Your task to perform on an android device: Open accessibility settings Image 0: 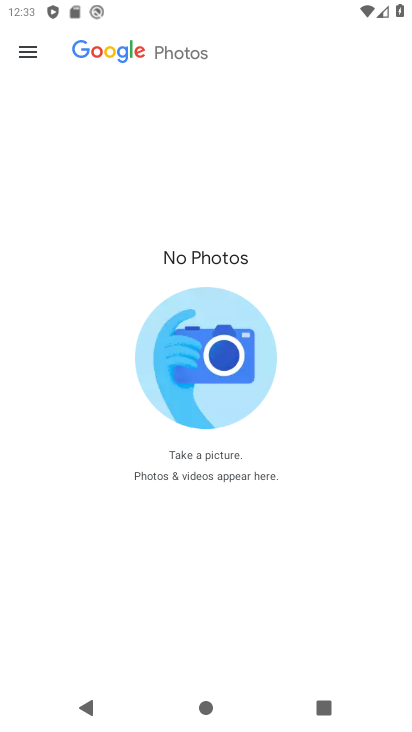
Step 0: press home button
Your task to perform on an android device: Open accessibility settings Image 1: 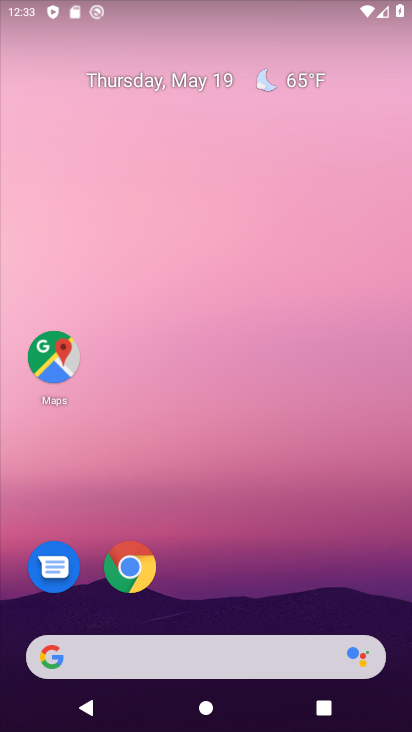
Step 1: drag from (269, 601) to (218, 123)
Your task to perform on an android device: Open accessibility settings Image 2: 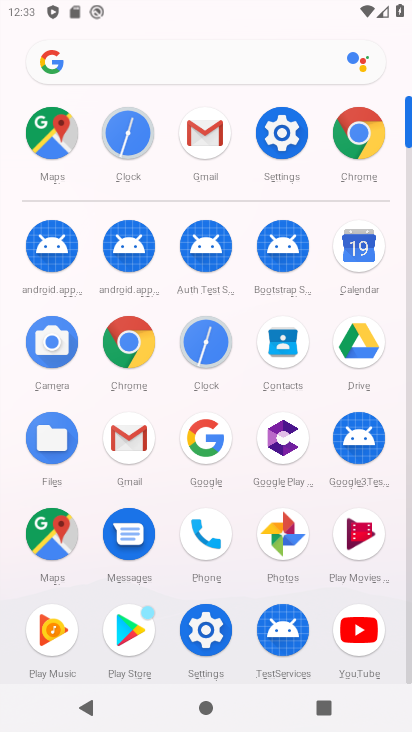
Step 2: click (277, 132)
Your task to perform on an android device: Open accessibility settings Image 3: 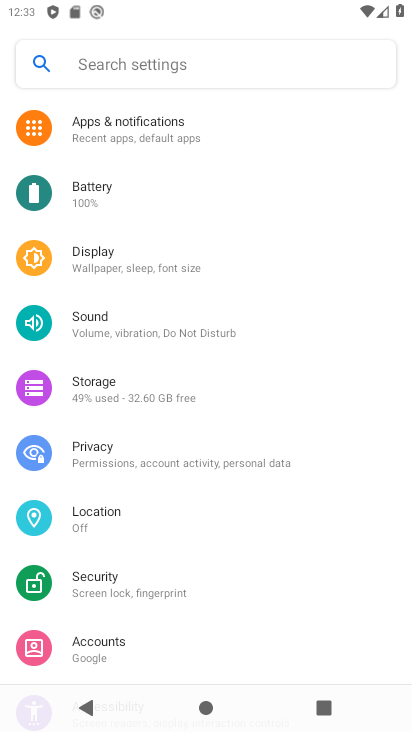
Step 3: drag from (266, 591) to (268, 288)
Your task to perform on an android device: Open accessibility settings Image 4: 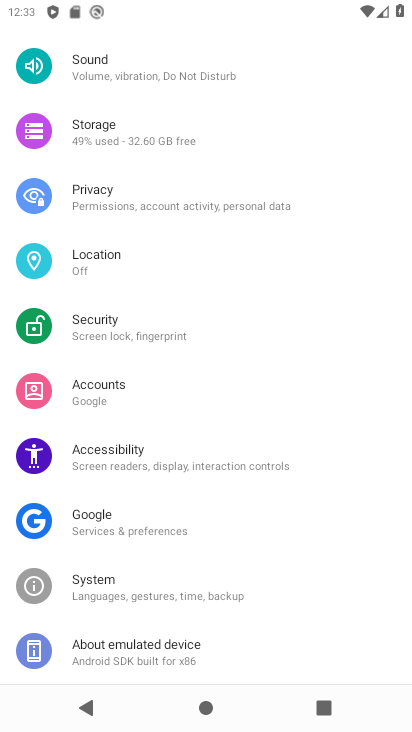
Step 4: click (192, 465)
Your task to perform on an android device: Open accessibility settings Image 5: 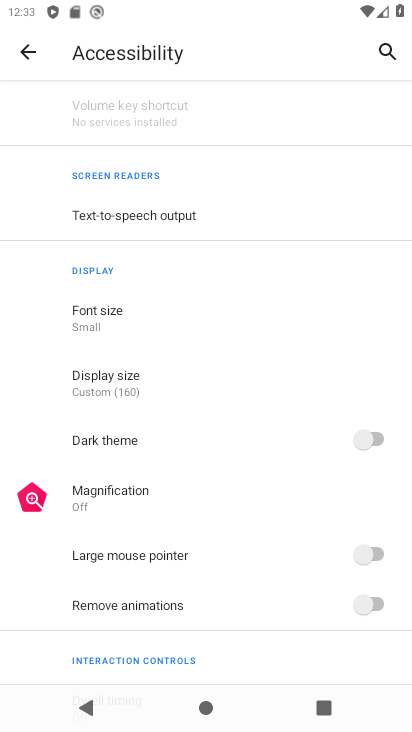
Step 5: task complete